Your task to perform on an android device: allow notifications from all sites in the chrome app Image 0: 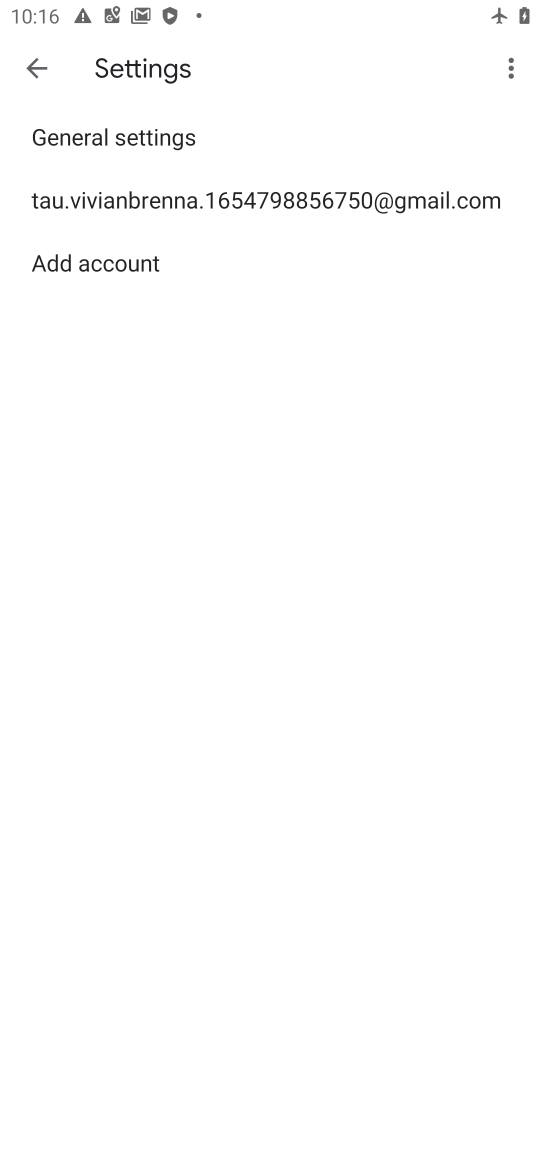
Step 0: press home button
Your task to perform on an android device: allow notifications from all sites in the chrome app Image 1: 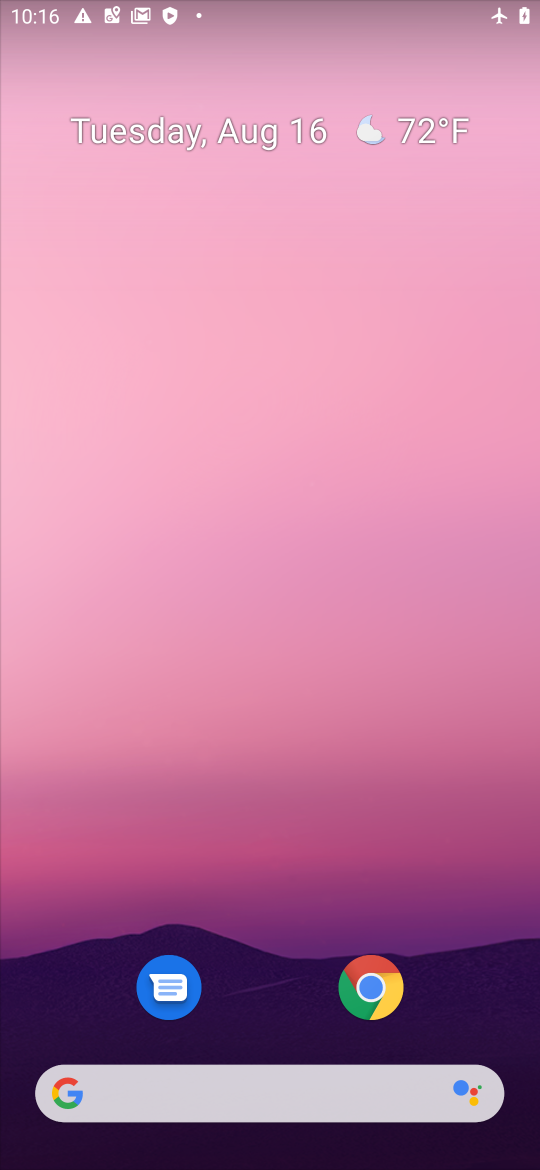
Step 1: click (366, 990)
Your task to perform on an android device: allow notifications from all sites in the chrome app Image 2: 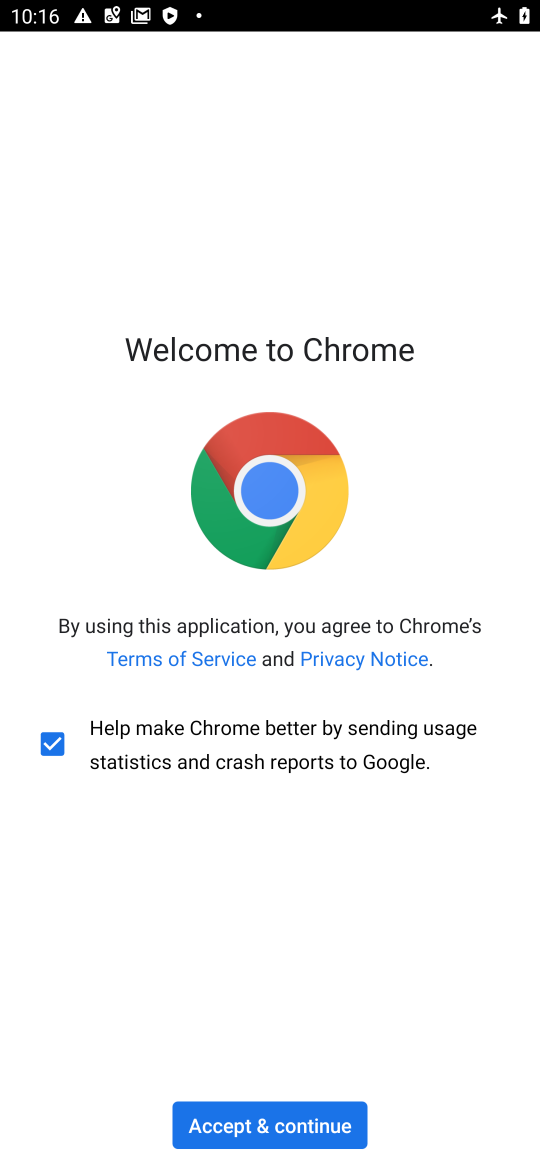
Step 2: click (278, 1124)
Your task to perform on an android device: allow notifications from all sites in the chrome app Image 3: 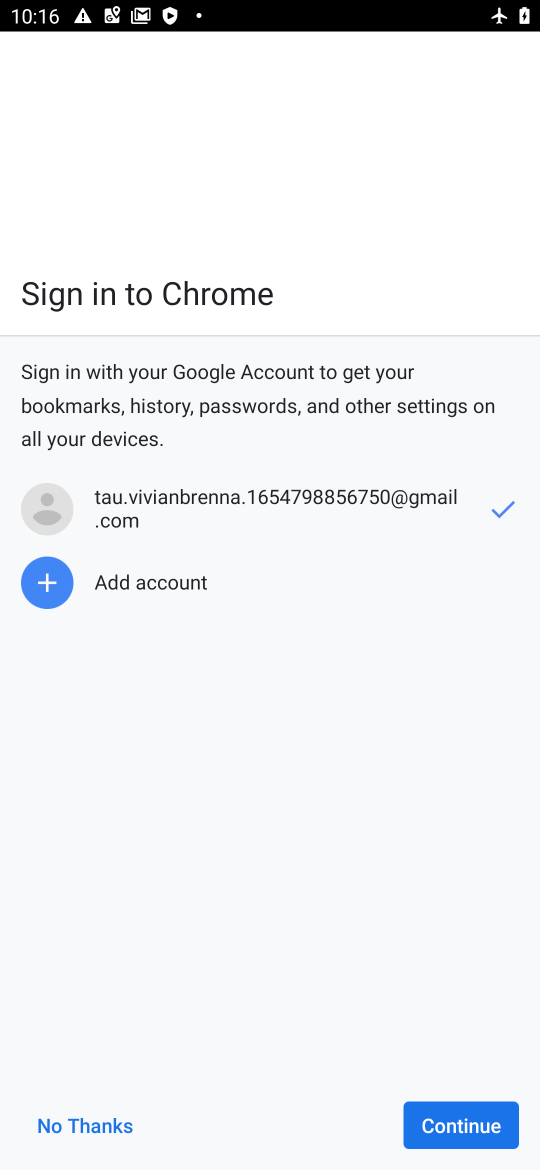
Step 3: click (425, 1129)
Your task to perform on an android device: allow notifications from all sites in the chrome app Image 4: 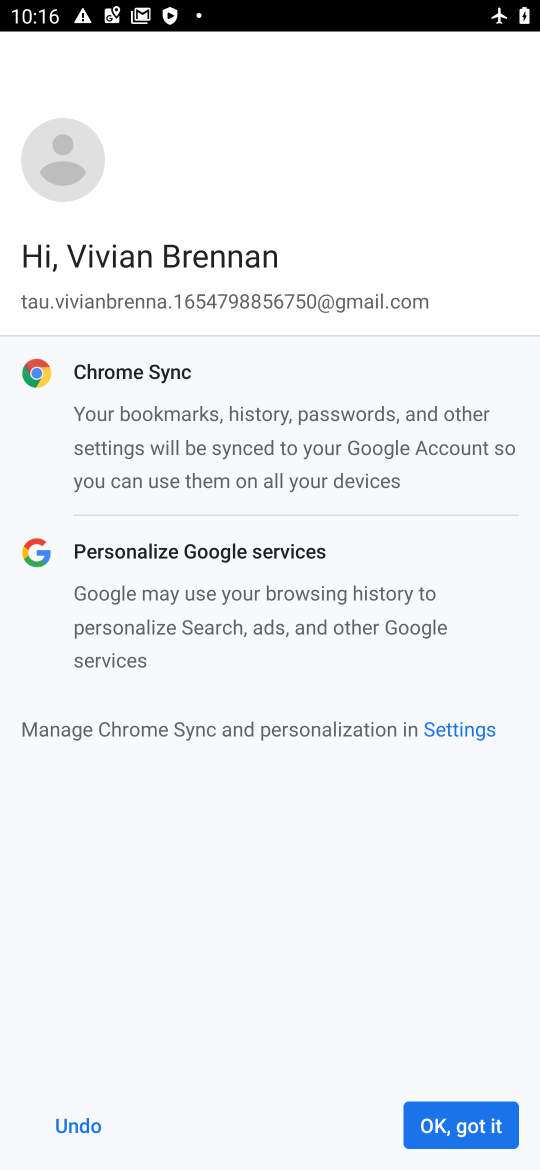
Step 4: click (452, 1125)
Your task to perform on an android device: allow notifications from all sites in the chrome app Image 5: 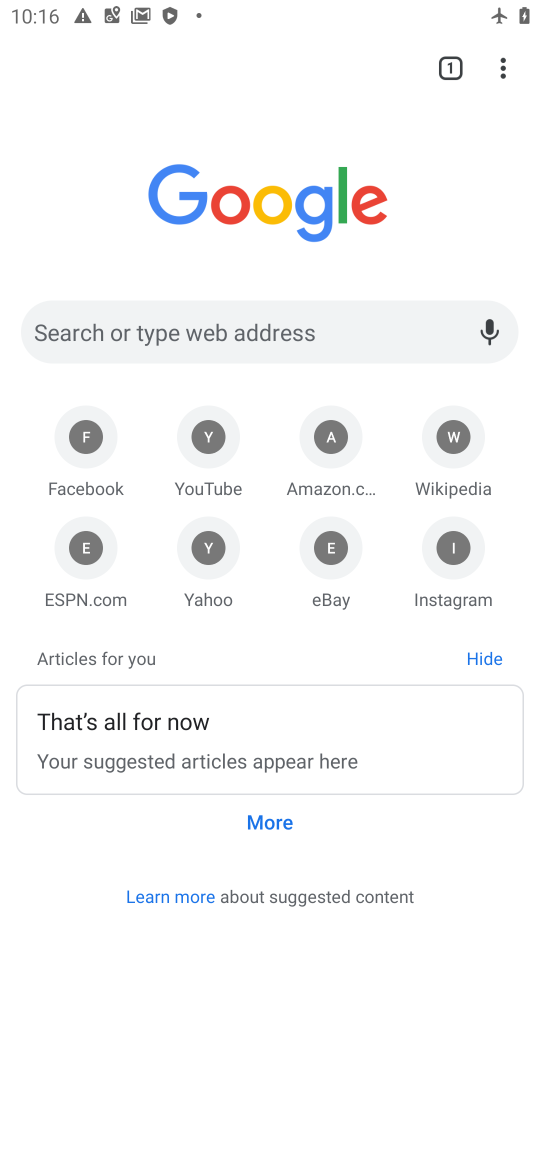
Step 5: click (500, 63)
Your task to perform on an android device: allow notifications from all sites in the chrome app Image 6: 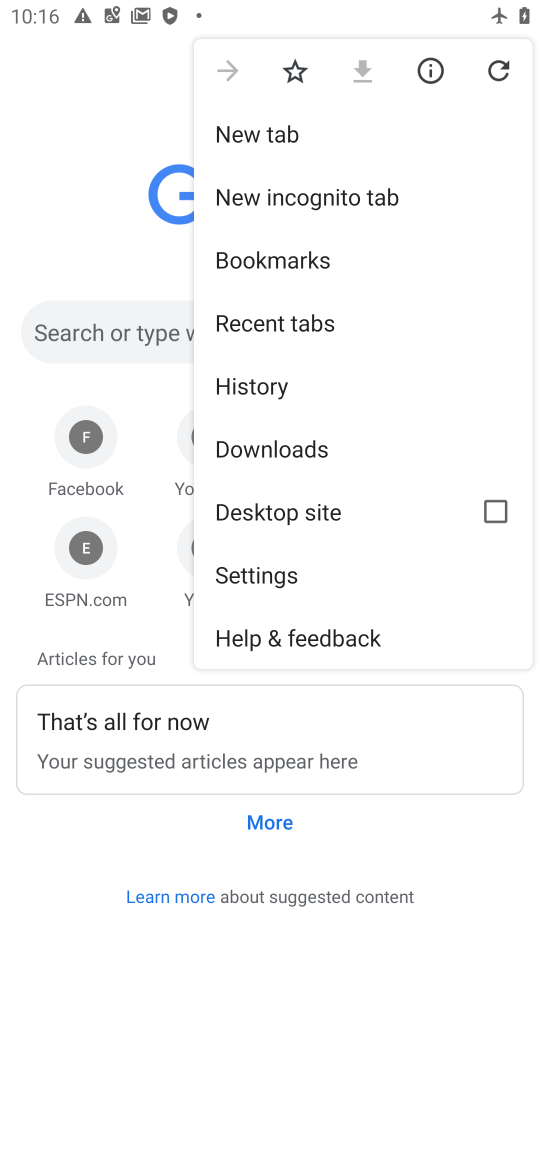
Step 6: click (275, 575)
Your task to perform on an android device: allow notifications from all sites in the chrome app Image 7: 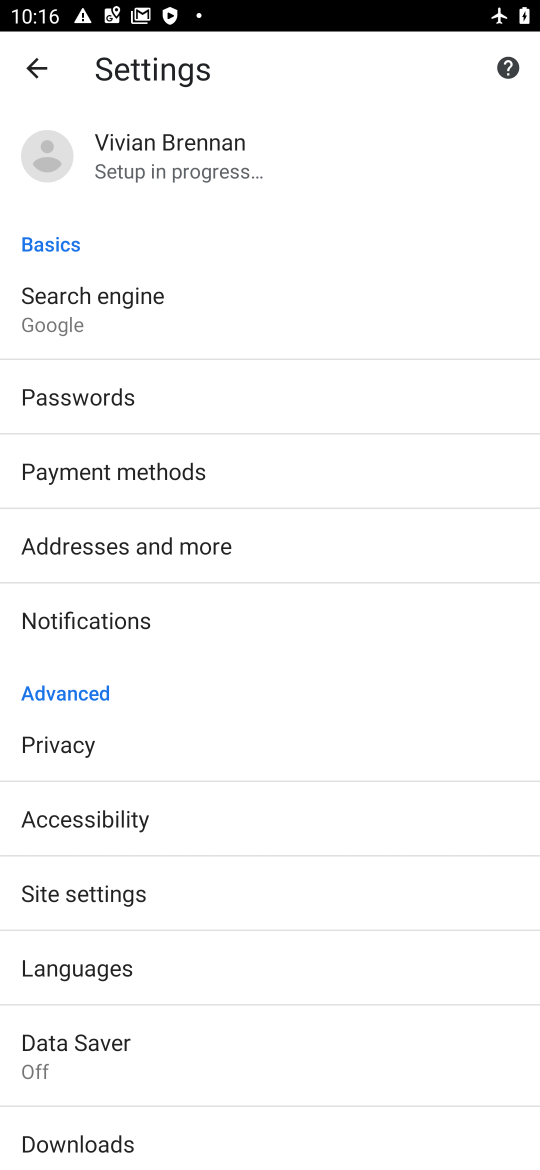
Step 7: click (132, 900)
Your task to perform on an android device: allow notifications from all sites in the chrome app Image 8: 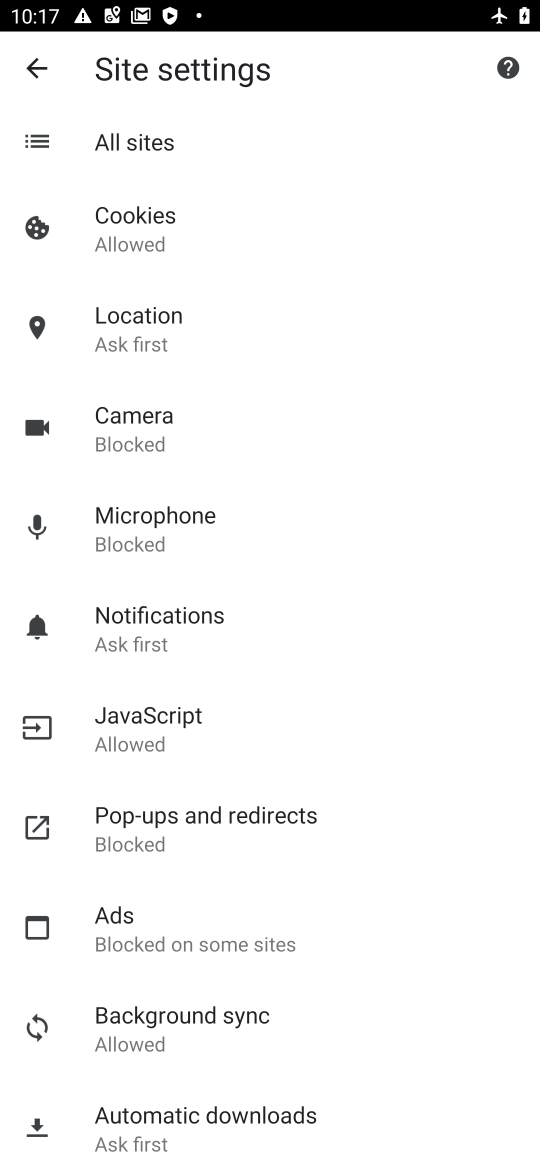
Step 8: task complete